Your task to perform on an android device: toggle data saver in the chrome app Image 0: 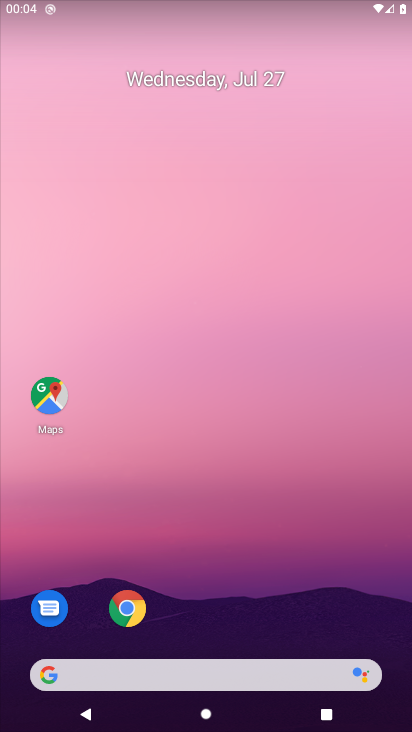
Step 0: press home button
Your task to perform on an android device: toggle data saver in the chrome app Image 1: 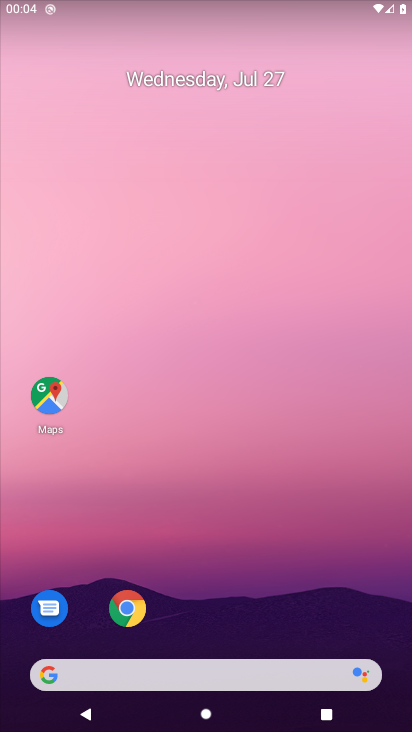
Step 1: click (138, 604)
Your task to perform on an android device: toggle data saver in the chrome app Image 2: 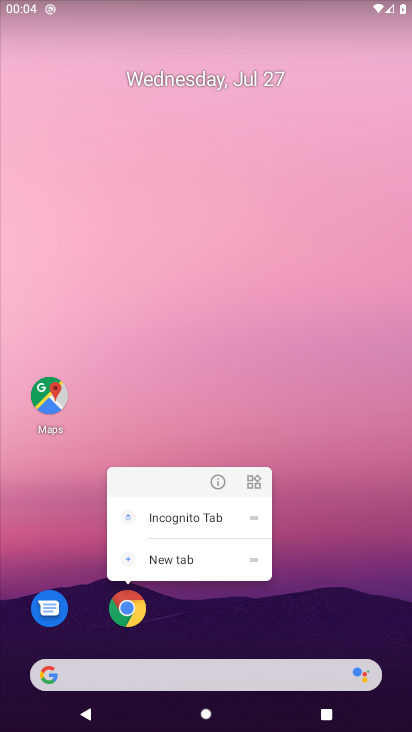
Step 2: click (125, 603)
Your task to perform on an android device: toggle data saver in the chrome app Image 3: 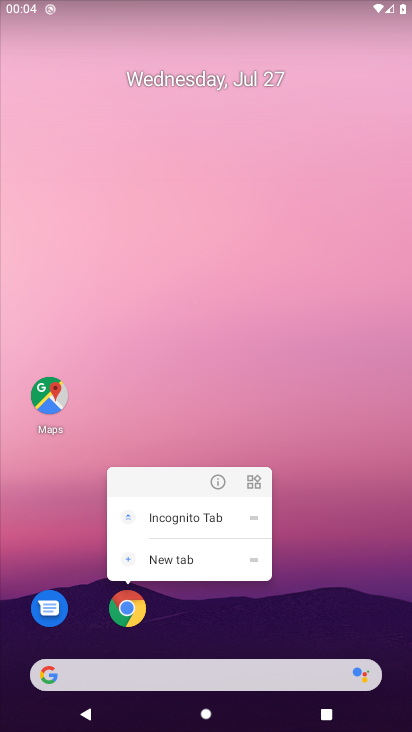
Step 3: click (124, 603)
Your task to perform on an android device: toggle data saver in the chrome app Image 4: 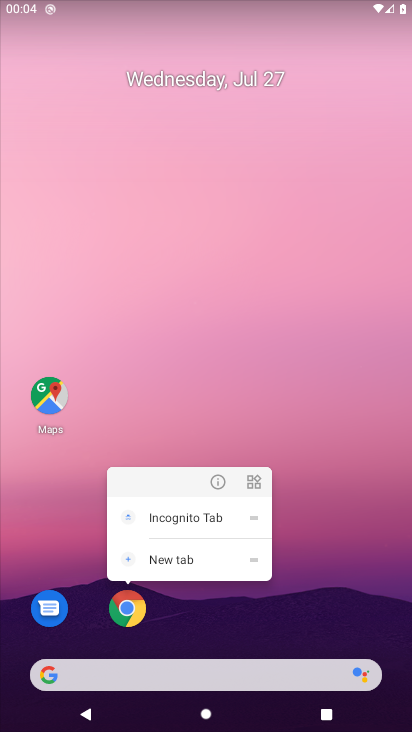
Step 4: click (118, 624)
Your task to perform on an android device: toggle data saver in the chrome app Image 5: 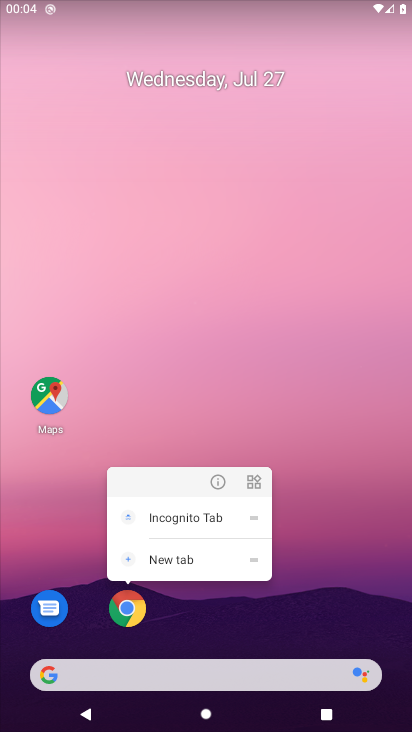
Step 5: click (118, 618)
Your task to perform on an android device: toggle data saver in the chrome app Image 6: 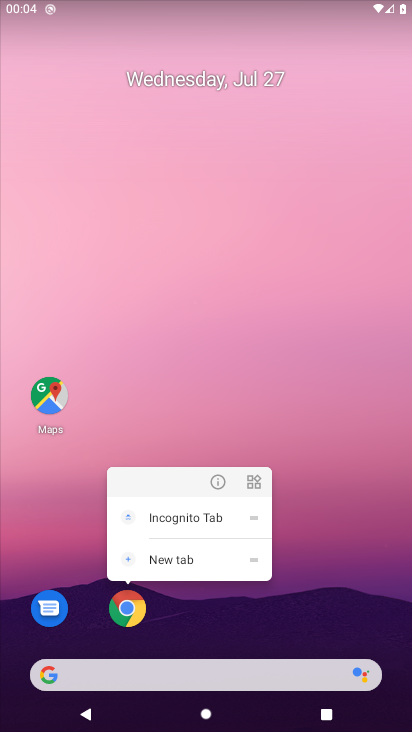
Step 6: click (137, 614)
Your task to perform on an android device: toggle data saver in the chrome app Image 7: 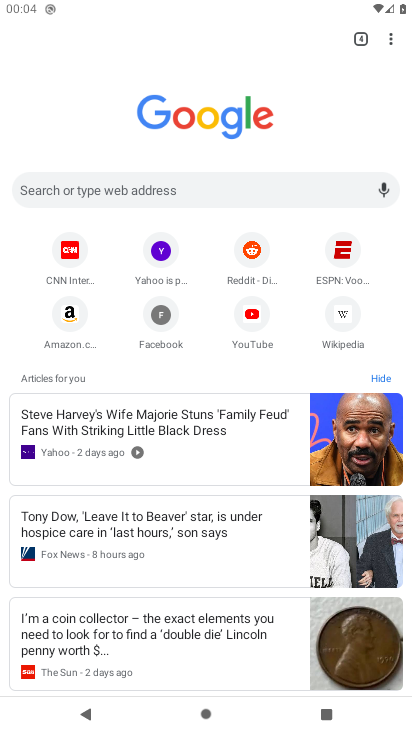
Step 7: drag from (391, 35) to (252, 331)
Your task to perform on an android device: toggle data saver in the chrome app Image 8: 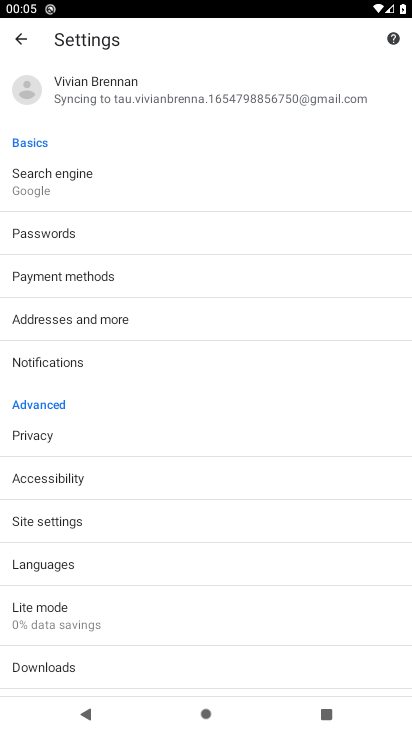
Step 8: click (33, 618)
Your task to perform on an android device: toggle data saver in the chrome app Image 9: 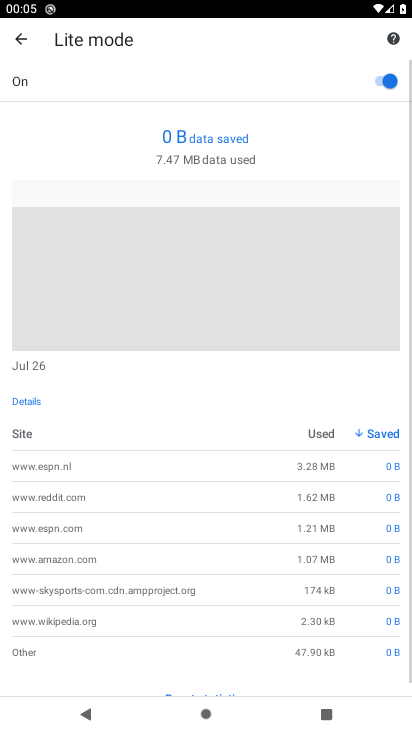
Step 9: click (385, 81)
Your task to perform on an android device: toggle data saver in the chrome app Image 10: 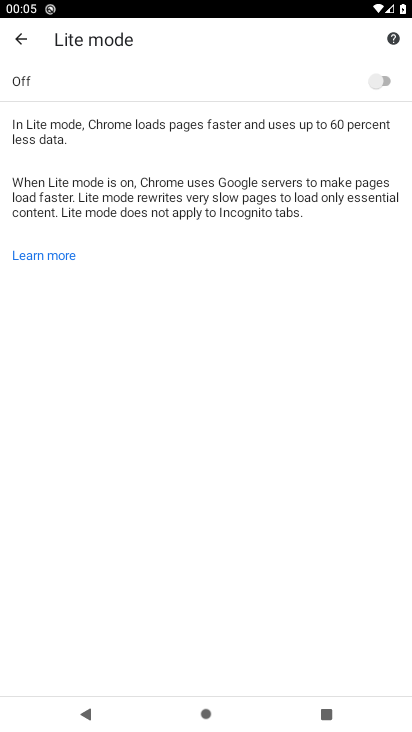
Step 10: task complete